Your task to perform on an android device: snooze an email in the gmail app Image 0: 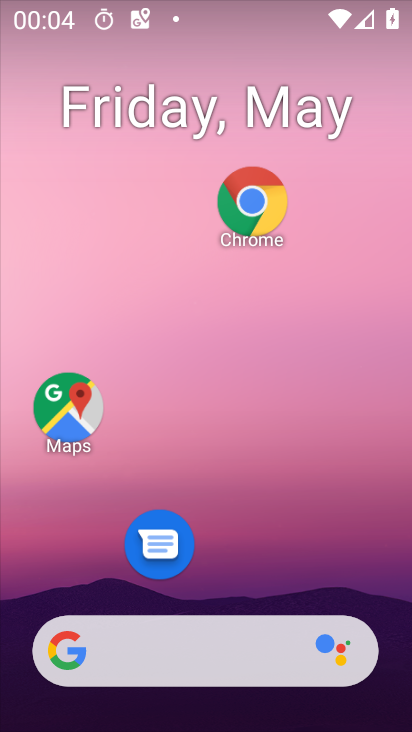
Step 0: drag from (222, 584) to (278, 62)
Your task to perform on an android device: snooze an email in the gmail app Image 1: 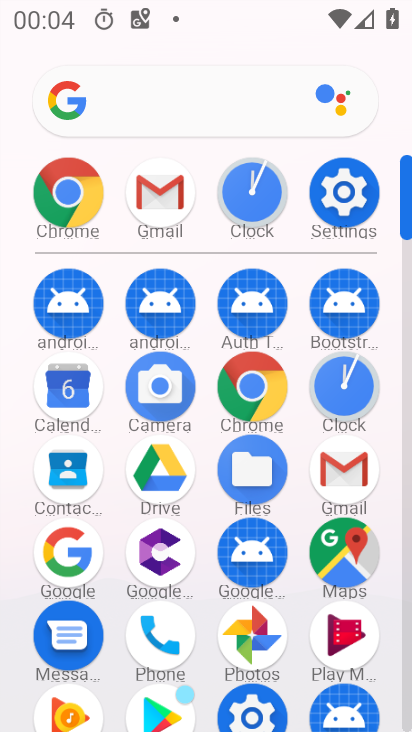
Step 1: click (344, 463)
Your task to perform on an android device: snooze an email in the gmail app Image 2: 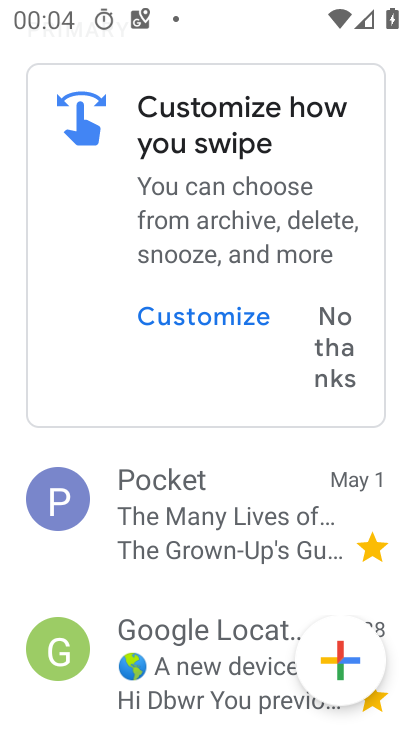
Step 2: click (54, 508)
Your task to perform on an android device: snooze an email in the gmail app Image 3: 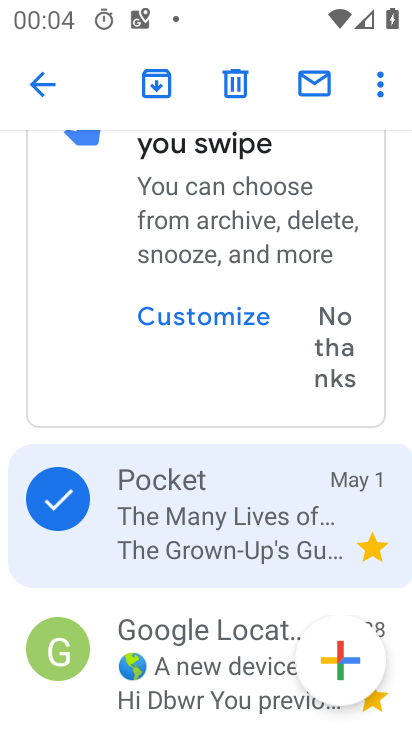
Step 3: click (381, 81)
Your task to perform on an android device: snooze an email in the gmail app Image 4: 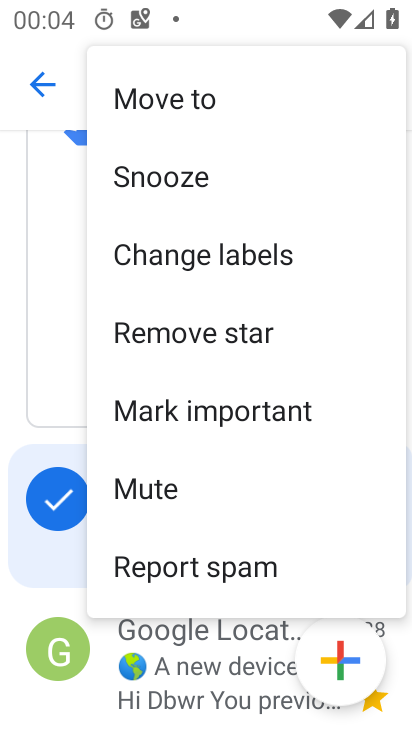
Step 4: click (190, 173)
Your task to perform on an android device: snooze an email in the gmail app Image 5: 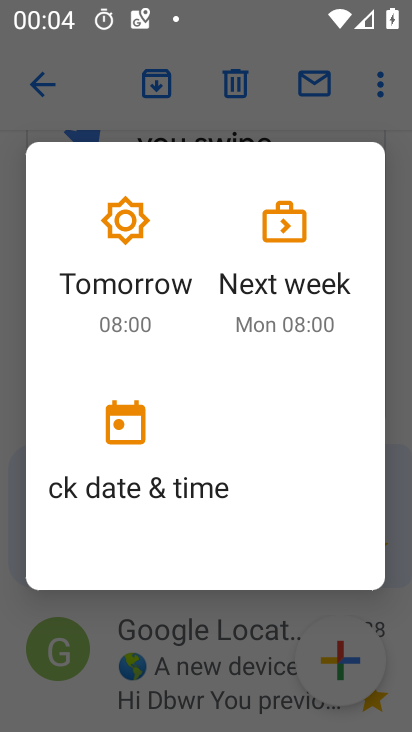
Step 5: click (288, 236)
Your task to perform on an android device: snooze an email in the gmail app Image 6: 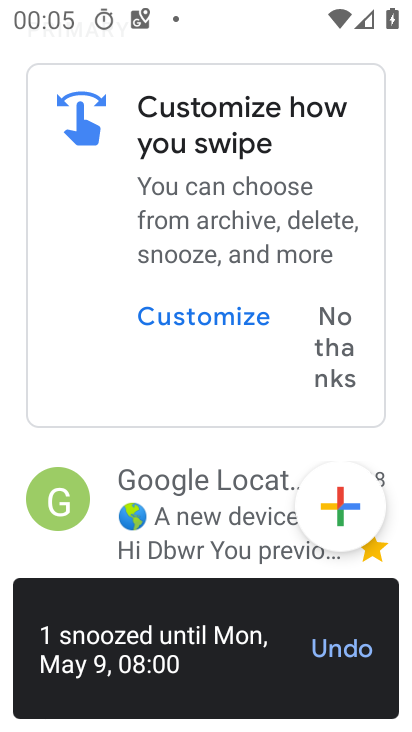
Step 6: task complete